Your task to perform on an android device: add a label to a message in the gmail app Image 0: 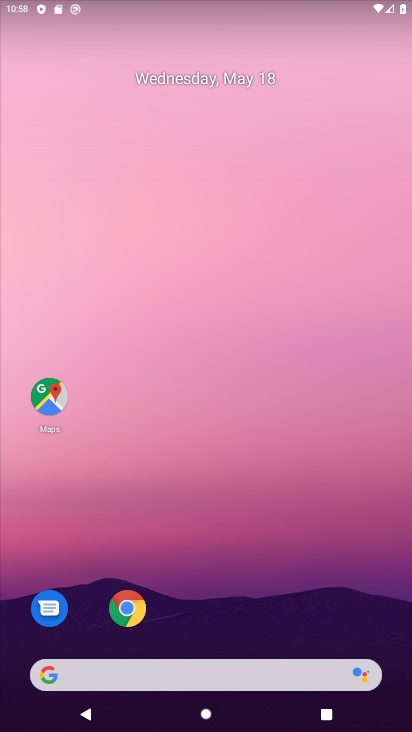
Step 0: drag from (305, 538) to (299, 56)
Your task to perform on an android device: add a label to a message in the gmail app Image 1: 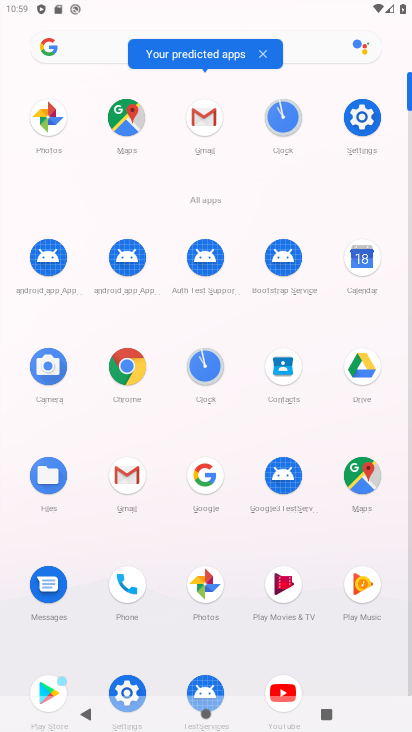
Step 1: click (203, 120)
Your task to perform on an android device: add a label to a message in the gmail app Image 2: 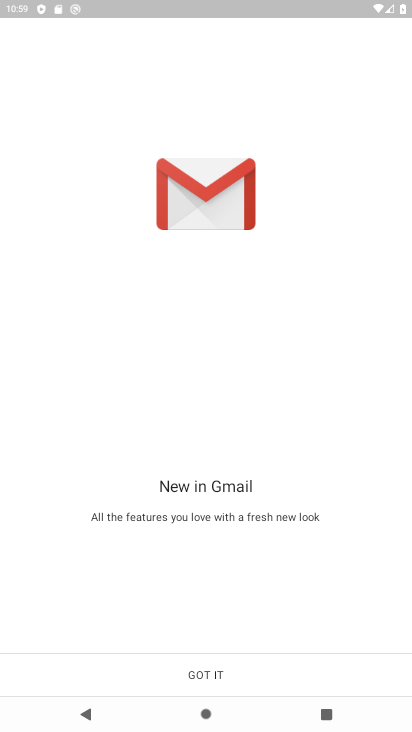
Step 2: click (213, 669)
Your task to perform on an android device: add a label to a message in the gmail app Image 3: 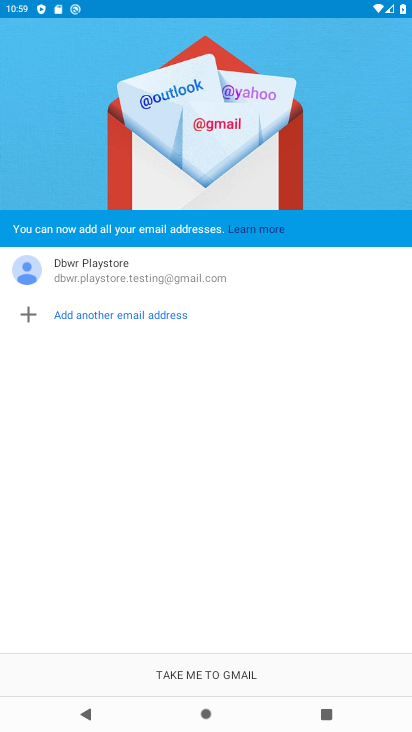
Step 3: click (213, 669)
Your task to perform on an android device: add a label to a message in the gmail app Image 4: 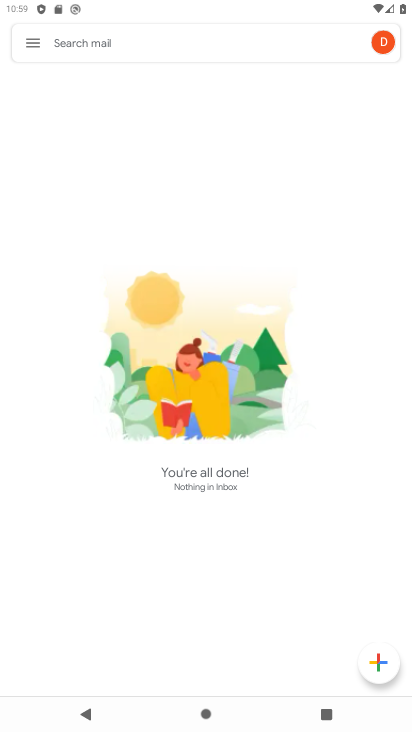
Step 4: click (33, 48)
Your task to perform on an android device: add a label to a message in the gmail app Image 5: 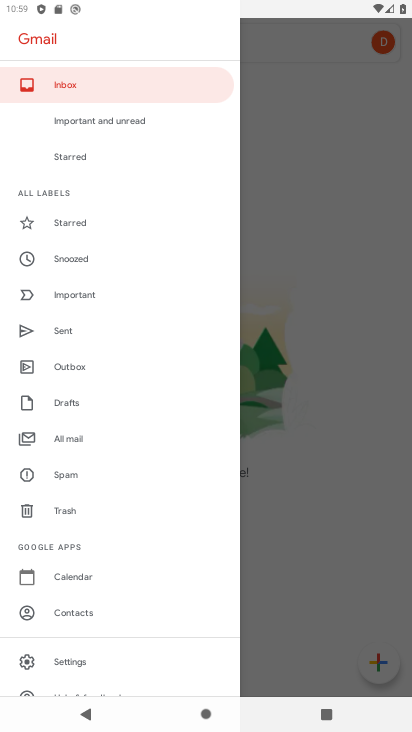
Step 5: click (76, 435)
Your task to perform on an android device: add a label to a message in the gmail app Image 6: 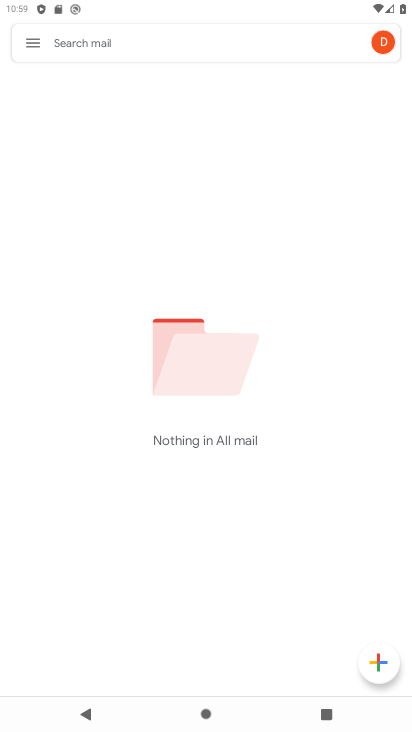
Step 6: task complete